Your task to perform on an android device: Open the Play Movies app and select the watchlist tab. Image 0: 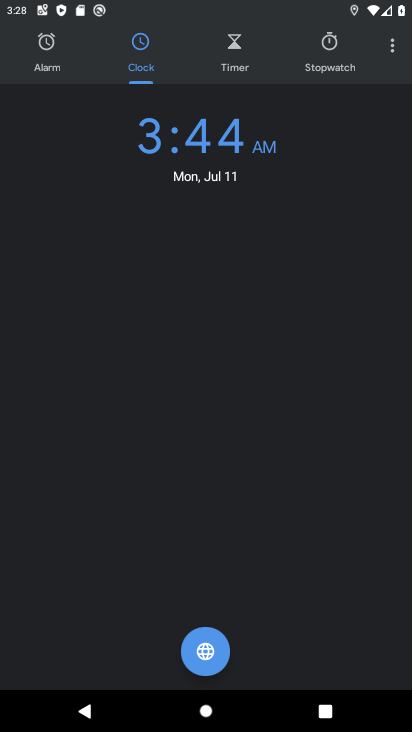
Step 0: press home button
Your task to perform on an android device: Open the Play Movies app and select the watchlist tab. Image 1: 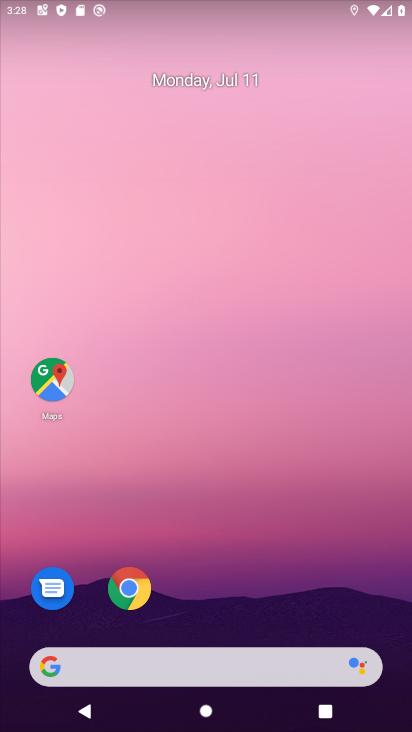
Step 1: drag from (188, 634) to (261, 311)
Your task to perform on an android device: Open the Play Movies app and select the watchlist tab. Image 2: 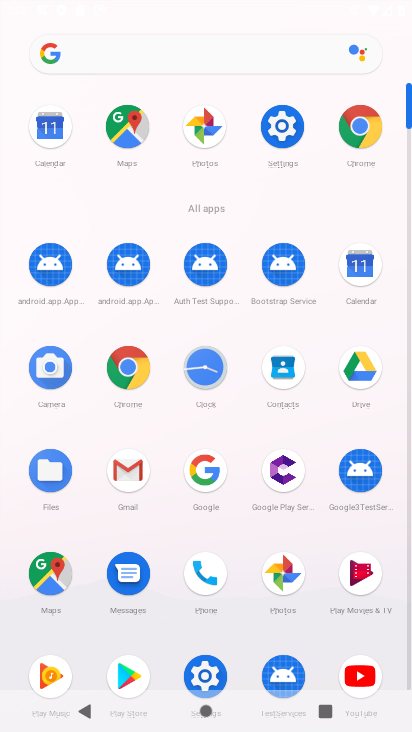
Step 2: click (368, 586)
Your task to perform on an android device: Open the Play Movies app and select the watchlist tab. Image 3: 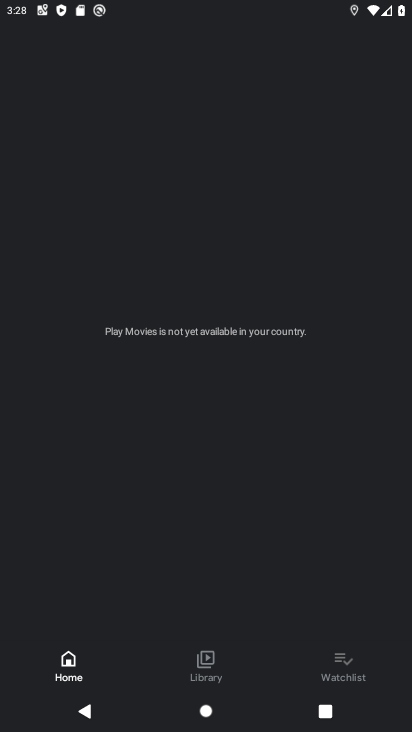
Step 3: click (345, 657)
Your task to perform on an android device: Open the Play Movies app and select the watchlist tab. Image 4: 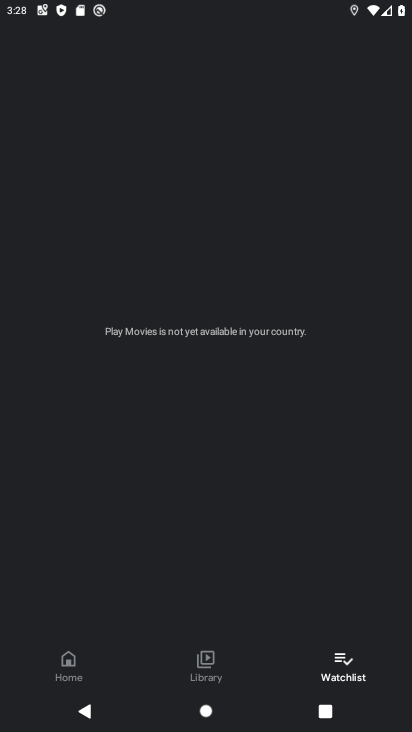
Step 4: task complete